Your task to perform on an android device: Go to ESPN.com Image 0: 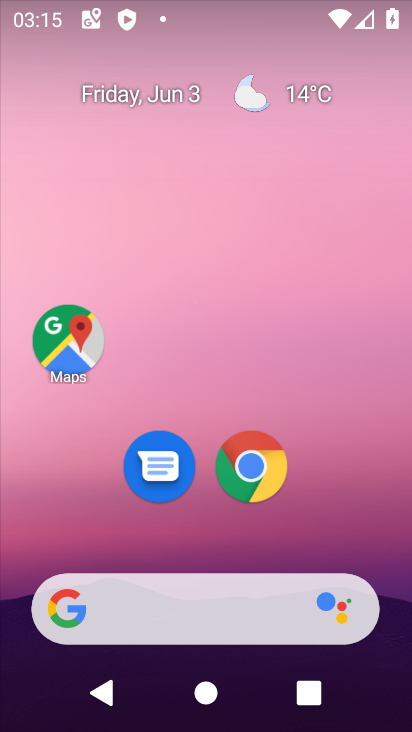
Step 0: press home button
Your task to perform on an android device: Go to ESPN.com Image 1: 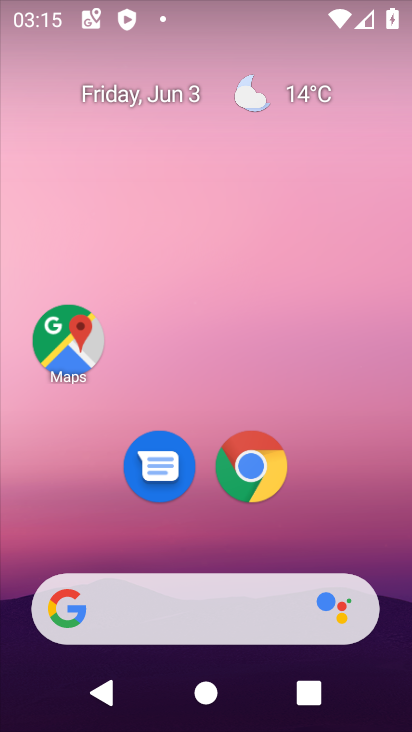
Step 1: click (246, 457)
Your task to perform on an android device: Go to ESPN.com Image 2: 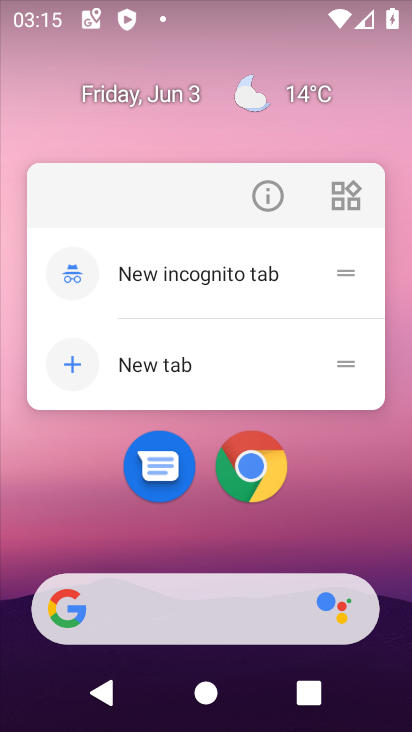
Step 2: click (246, 459)
Your task to perform on an android device: Go to ESPN.com Image 3: 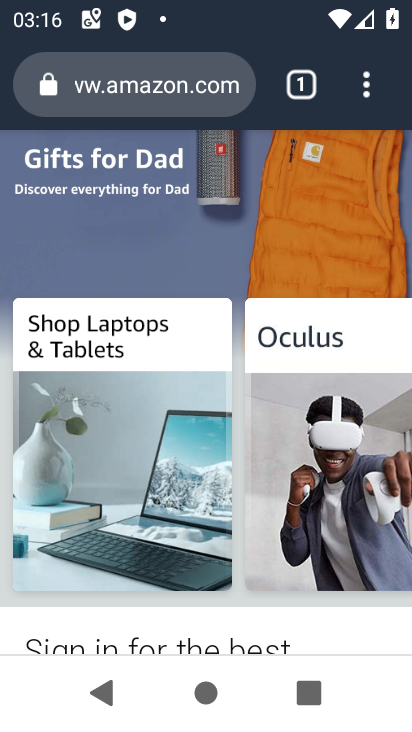
Step 3: click (303, 80)
Your task to perform on an android device: Go to ESPN.com Image 4: 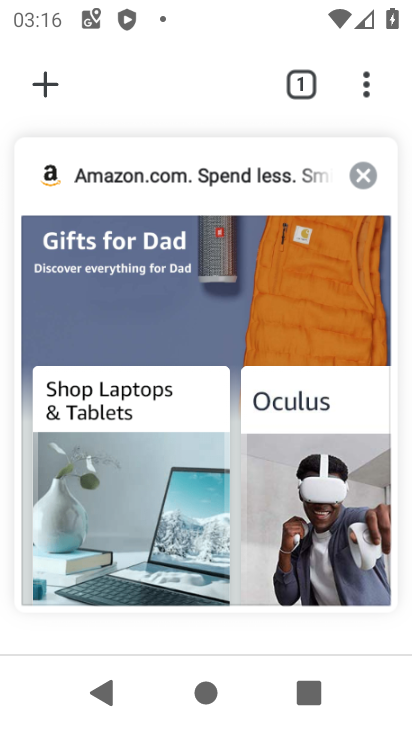
Step 4: click (361, 171)
Your task to perform on an android device: Go to ESPN.com Image 5: 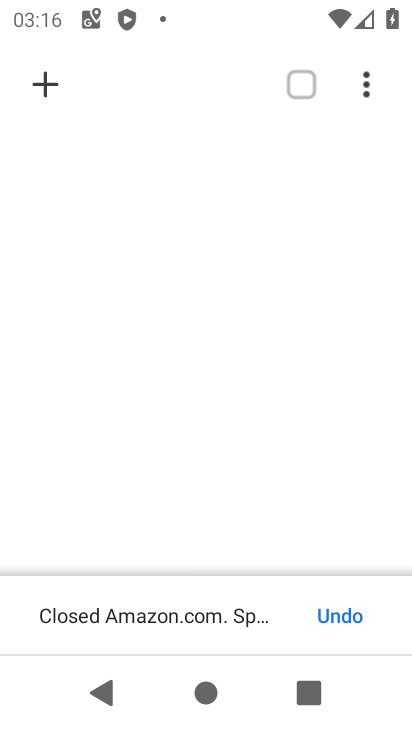
Step 5: click (45, 89)
Your task to perform on an android device: Go to ESPN.com Image 6: 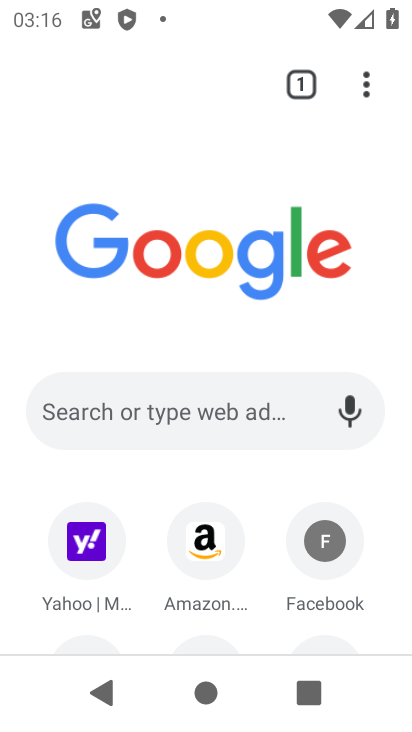
Step 6: drag from (237, 487) to (284, 118)
Your task to perform on an android device: Go to ESPN.com Image 7: 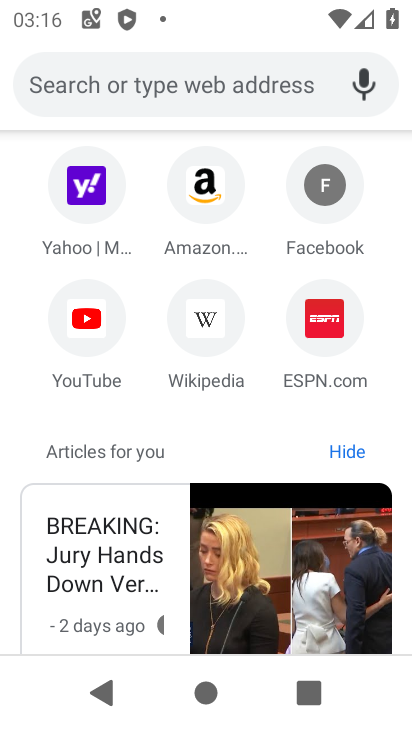
Step 7: click (324, 308)
Your task to perform on an android device: Go to ESPN.com Image 8: 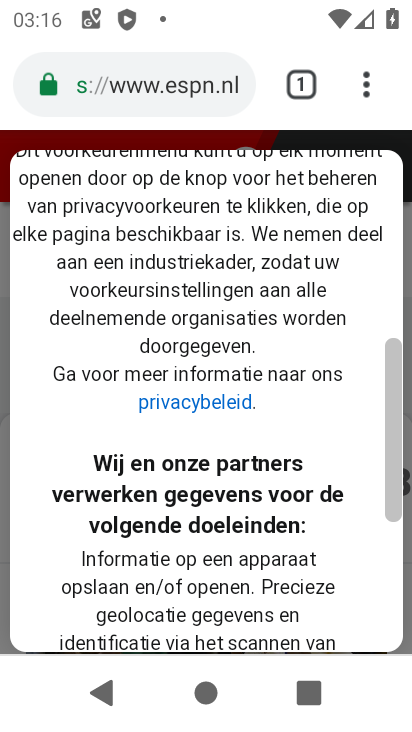
Step 8: drag from (222, 603) to (249, 178)
Your task to perform on an android device: Go to ESPN.com Image 9: 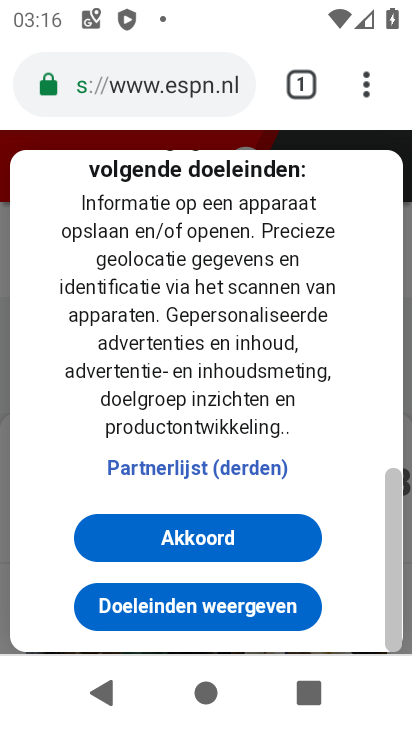
Step 9: click (197, 535)
Your task to perform on an android device: Go to ESPN.com Image 10: 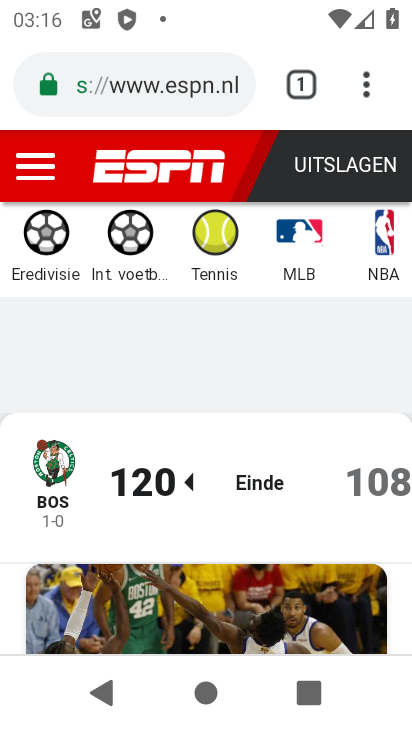
Step 10: task complete